Your task to perform on an android device: Go to settings Image 0: 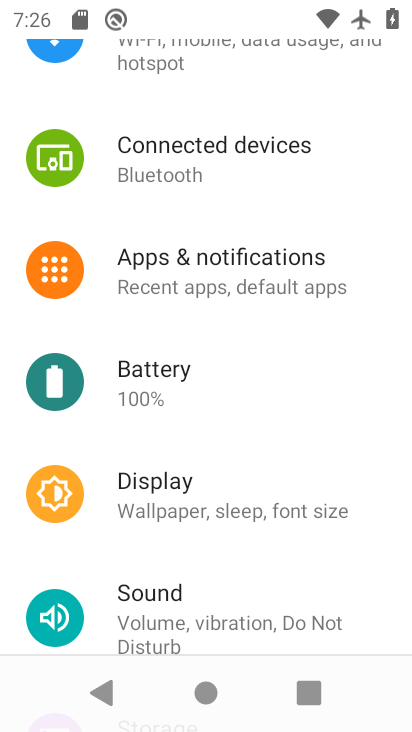
Step 0: task complete